Your task to perform on an android device: Search for seafood restaurants on Google Maps Image 0: 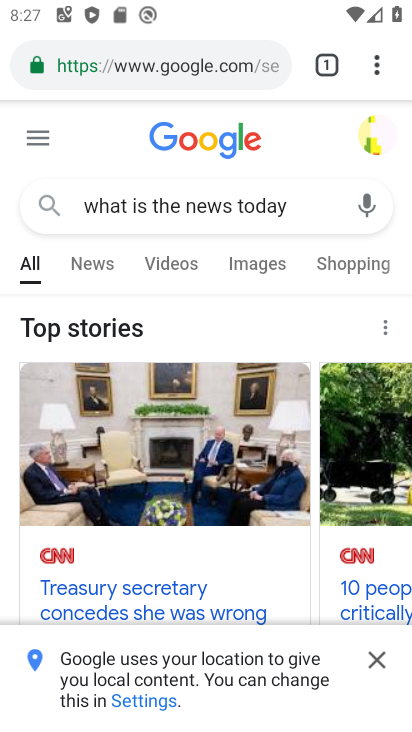
Step 0: press home button
Your task to perform on an android device: Search for seafood restaurants on Google Maps Image 1: 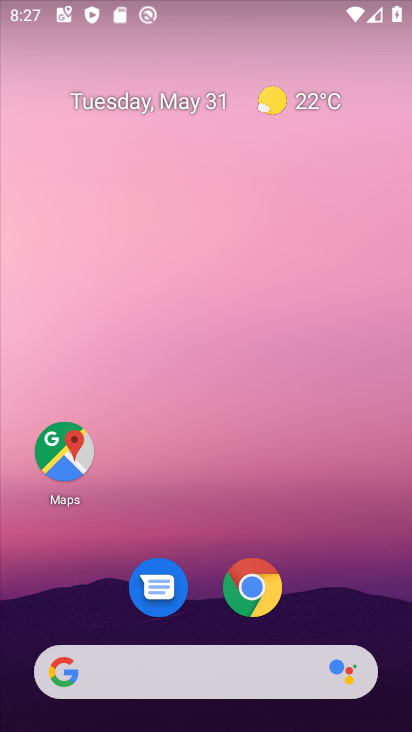
Step 1: click (60, 456)
Your task to perform on an android device: Search for seafood restaurants on Google Maps Image 2: 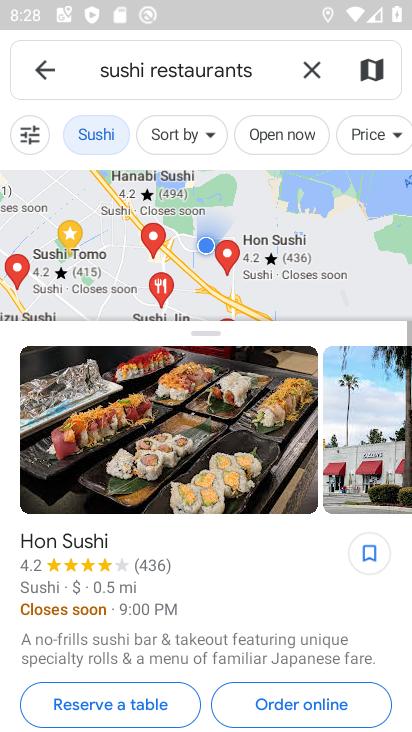
Step 2: click (300, 73)
Your task to perform on an android device: Search for seafood restaurants on Google Maps Image 3: 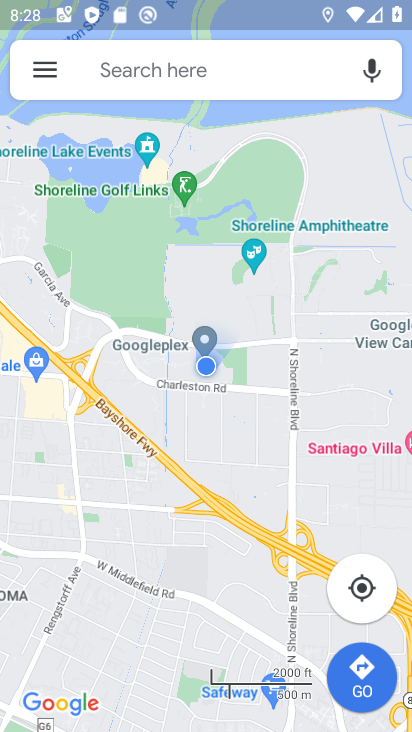
Step 3: click (176, 83)
Your task to perform on an android device: Search for seafood restaurants on Google Maps Image 4: 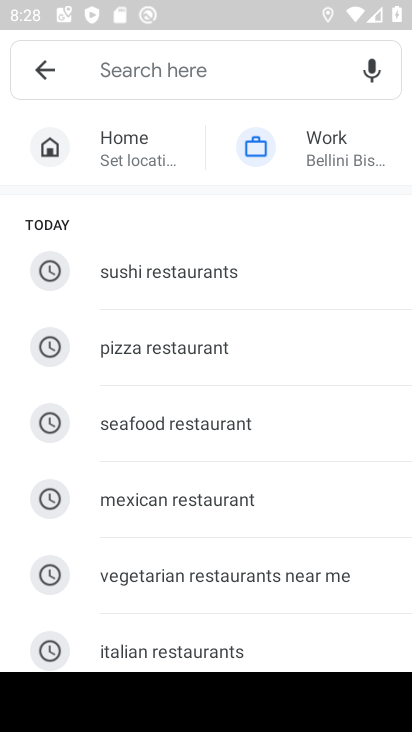
Step 4: click (170, 418)
Your task to perform on an android device: Search for seafood restaurants on Google Maps Image 5: 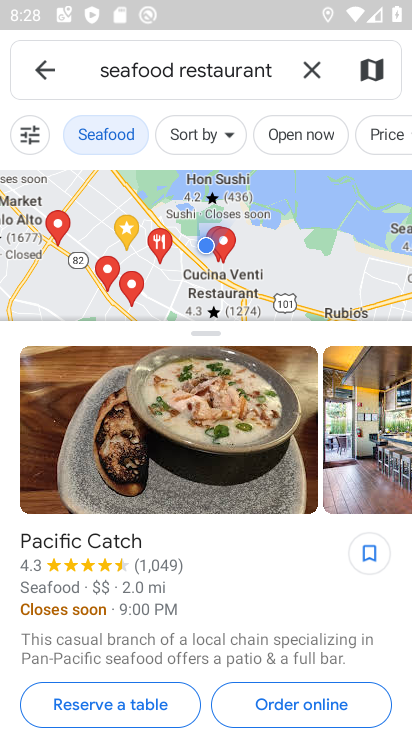
Step 5: task complete